Your task to perform on an android device: Open display settings Image 0: 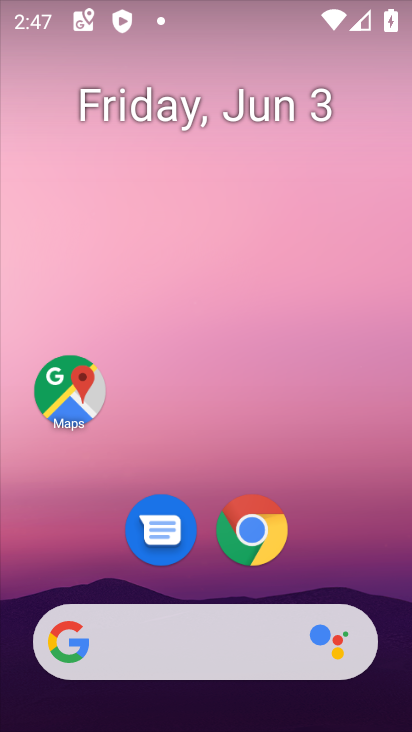
Step 0: drag from (317, 453) to (221, 36)
Your task to perform on an android device: Open display settings Image 1: 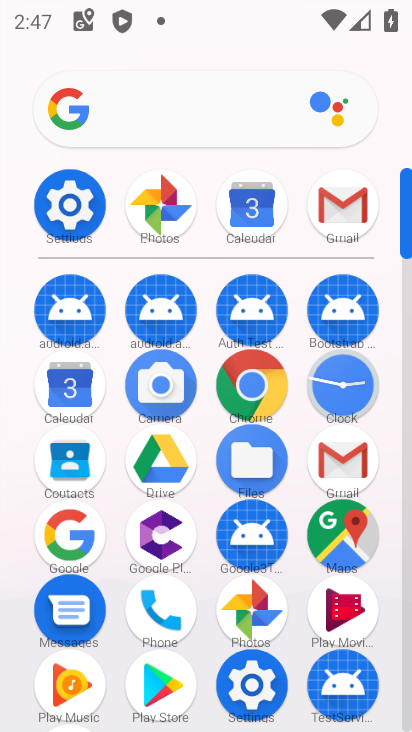
Step 1: click (67, 206)
Your task to perform on an android device: Open display settings Image 2: 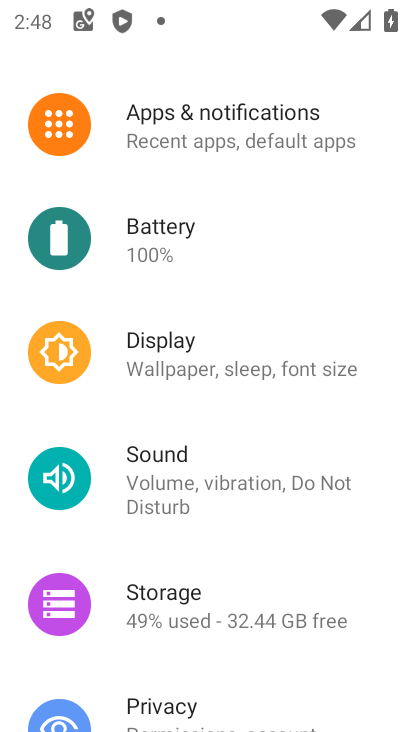
Step 2: click (149, 348)
Your task to perform on an android device: Open display settings Image 3: 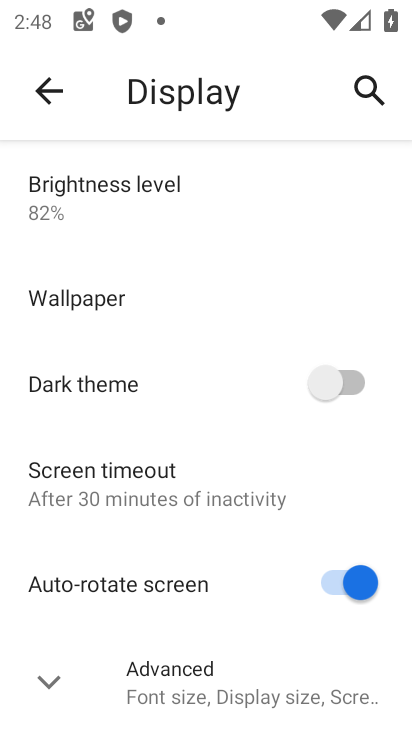
Step 3: task complete